Your task to perform on an android device: set default search engine in the chrome app Image 0: 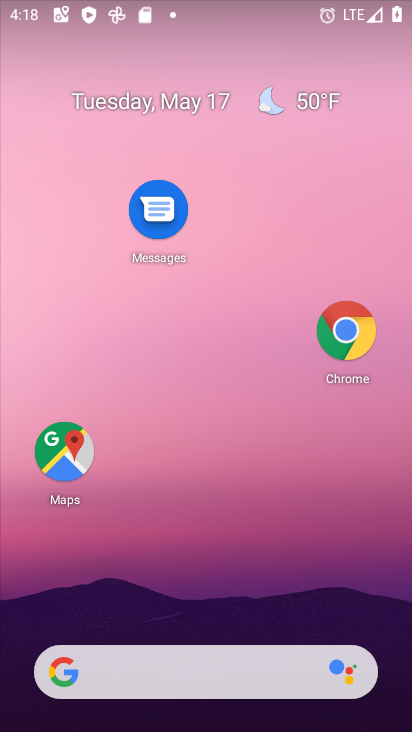
Step 0: click (345, 315)
Your task to perform on an android device: set default search engine in the chrome app Image 1: 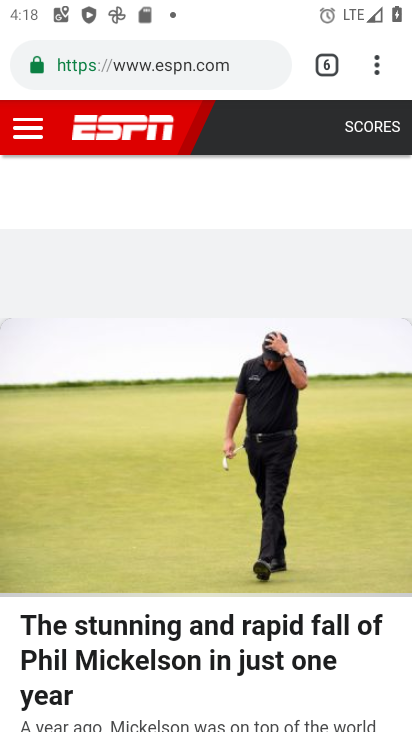
Step 1: click (366, 81)
Your task to perform on an android device: set default search engine in the chrome app Image 2: 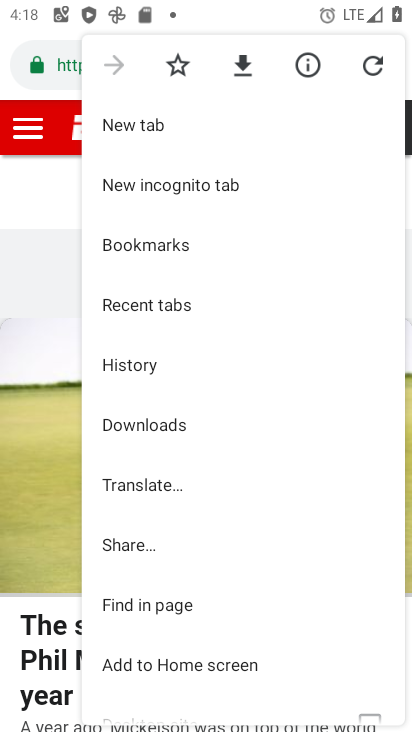
Step 2: drag from (225, 521) to (196, 299)
Your task to perform on an android device: set default search engine in the chrome app Image 3: 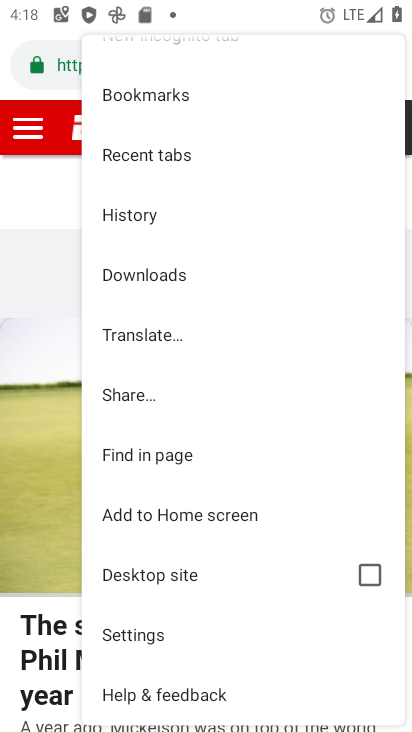
Step 3: click (190, 639)
Your task to perform on an android device: set default search engine in the chrome app Image 4: 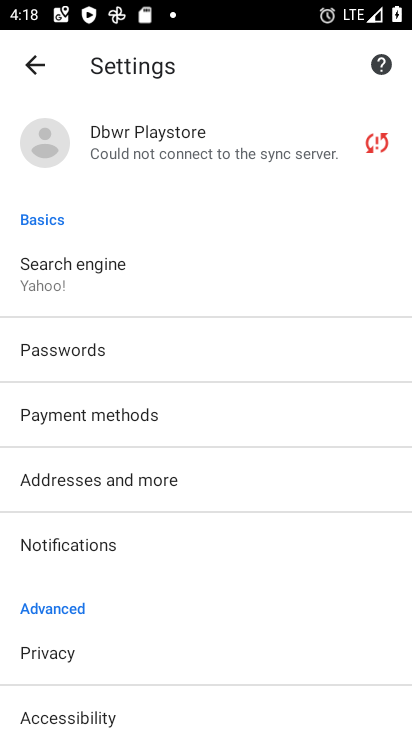
Step 4: click (96, 270)
Your task to perform on an android device: set default search engine in the chrome app Image 5: 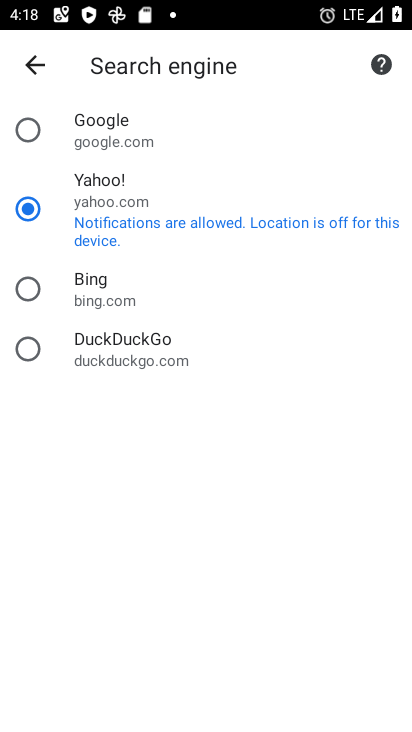
Step 5: click (90, 144)
Your task to perform on an android device: set default search engine in the chrome app Image 6: 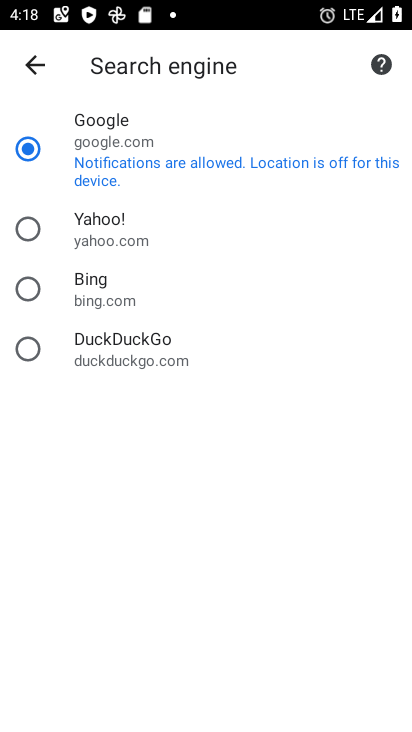
Step 6: task complete